Your task to perform on an android device: move a message to another label in the gmail app Image 0: 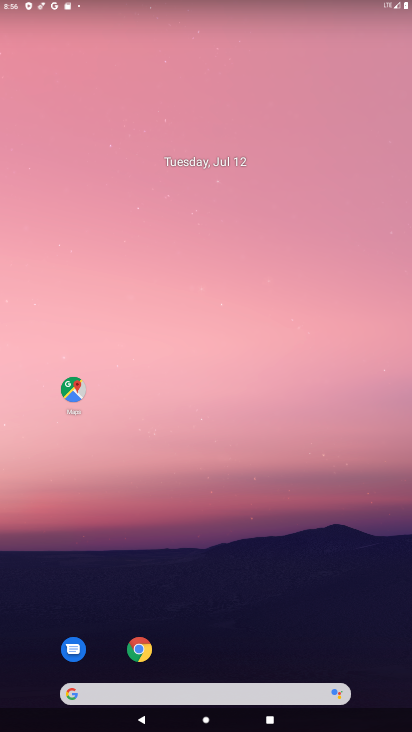
Step 0: drag from (335, 666) to (327, 281)
Your task to perform on an android device: move a message to another label in the gmail app Image 1: 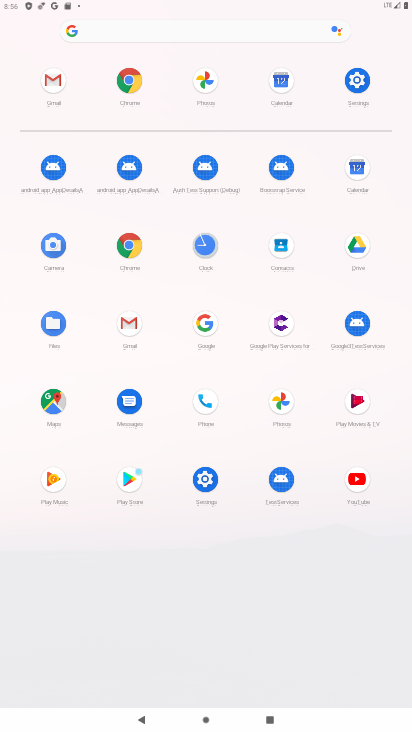
Step 1: click (55, 90)
Your task to perform on an android device: move a message to another label in the gmail app Image 2: 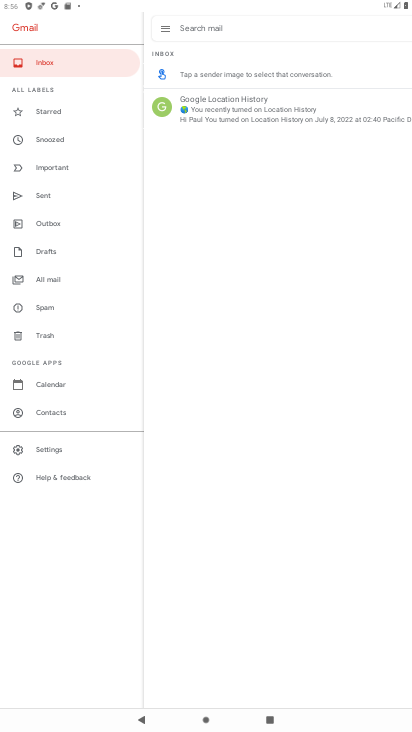
Step 2: click (315, 110)
Your task to perform on an android device: move a message to another label in the gmail app Image 3: 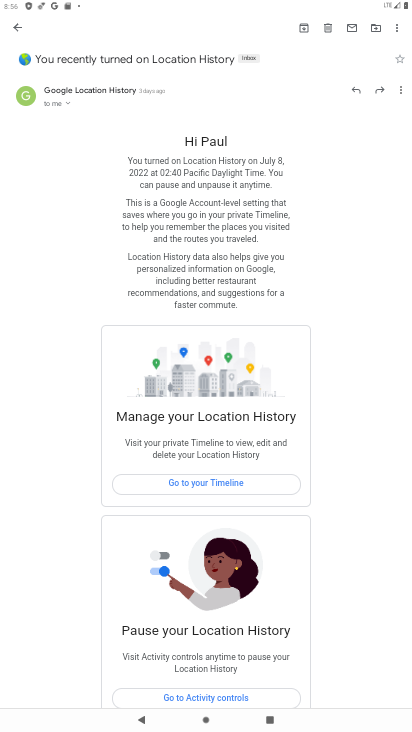
Step 3: click (399, 32)
Your task to perform on an android device: move a message to another label in the gmail app Image 4: 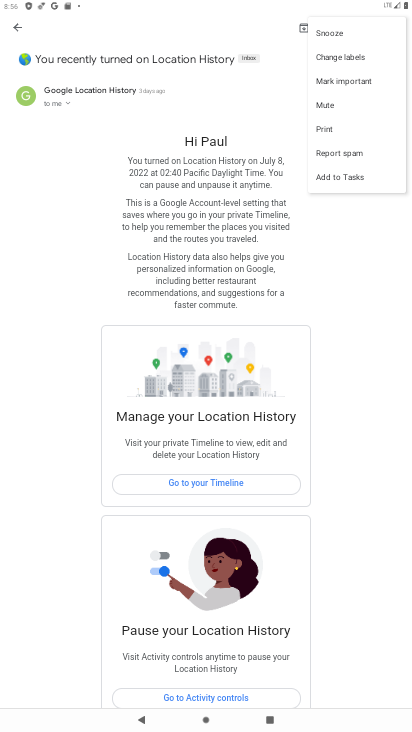
Step 4: click (369, 60)
Your task to perform on an android device: move a message to another label in the gmail app Image 5: 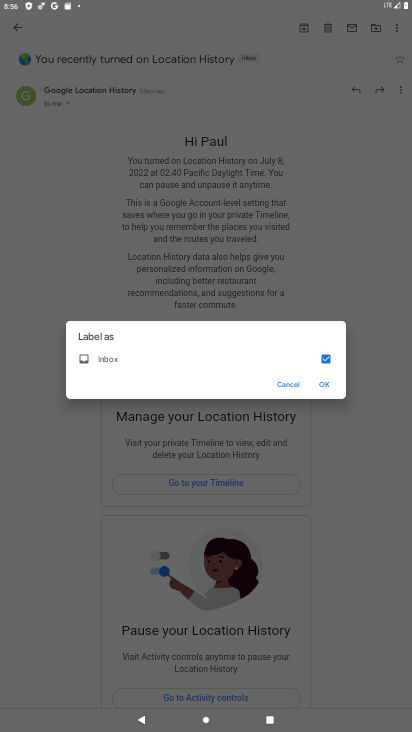
Step 5: click (314, 376)
Your task to perform on an android device: move a message to another label in the gmail app Image 6: 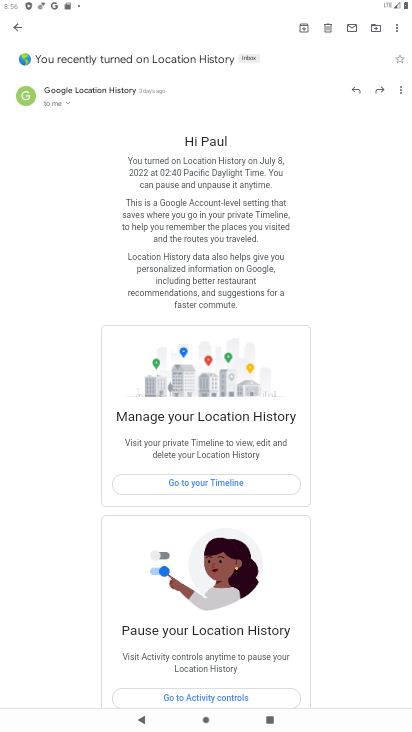
Step 6: task complete